Your task to perform on an android device: Clear the shopping cart on walmart.com. Add razer blade to the cart on walmart.com Image 0: 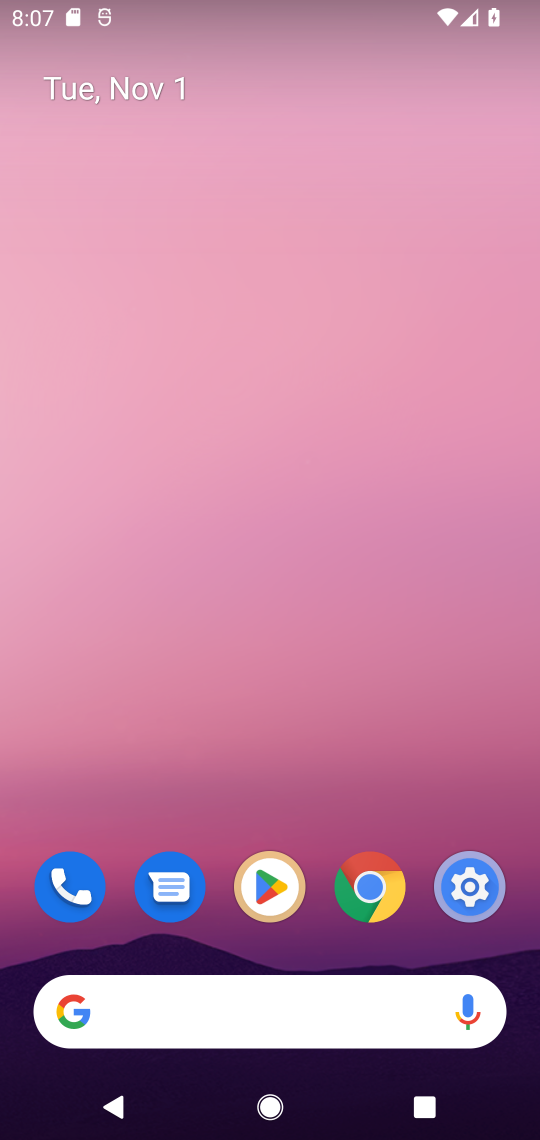
Step 0: click (209, 984)
Your task to perform on an android device: Clear the shopping cart on walmart.com. Add razer blade to the cart on walmart.com Image 1: 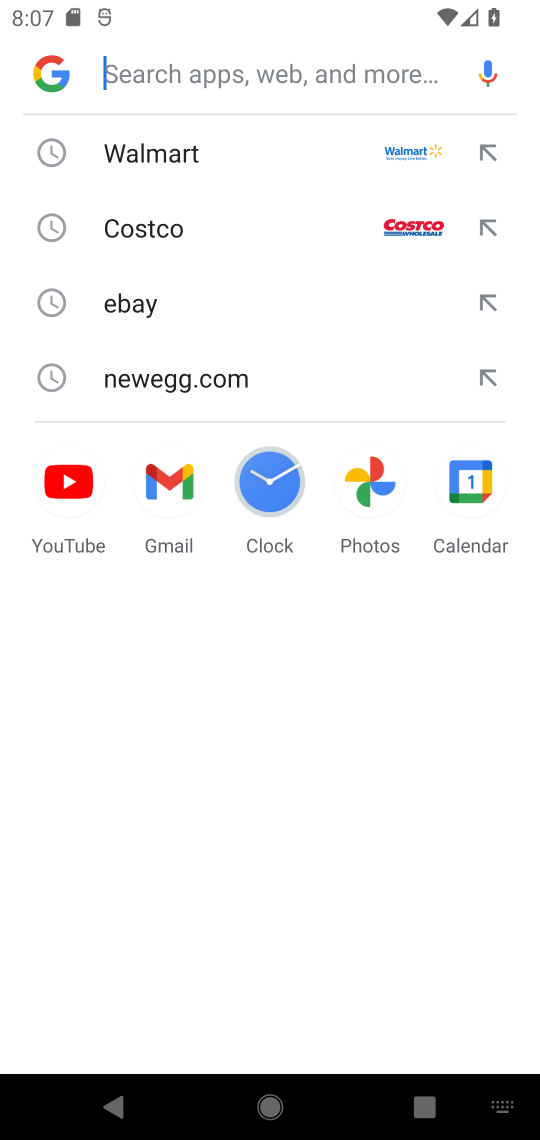
Step 1: click (396, 164)
Your task to perform on an android device: Clear the shopping cart on walmart.com. Add razer blade to the cart on walmart.com Image 2: 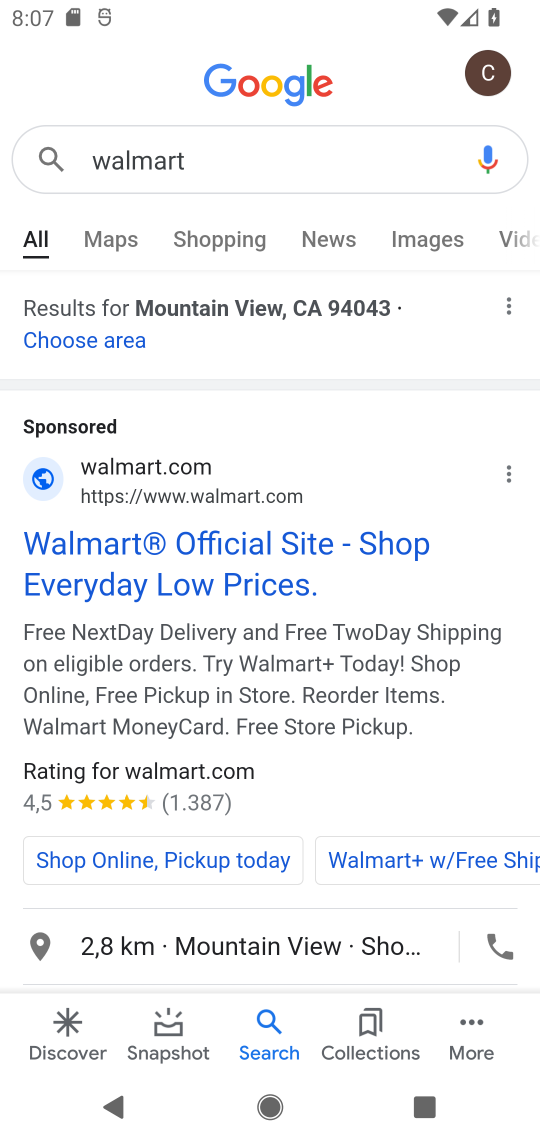
Step 2: click (481, 74)
Your task to perform on an android device: Clear the shopping cart on walmart.com. Add razer blade to the cart on walmart.com Image 3: 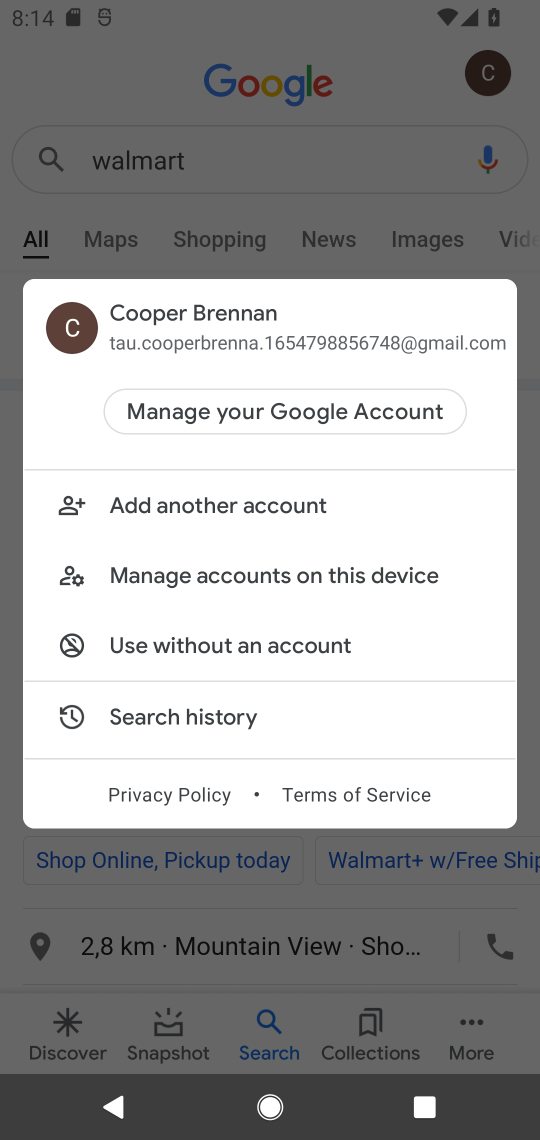
Step 3: press home button
Your task to perform on an android device: Clear the shopping cart on walmart.com. Add razer blade to the cart on walmart.com Image 4: 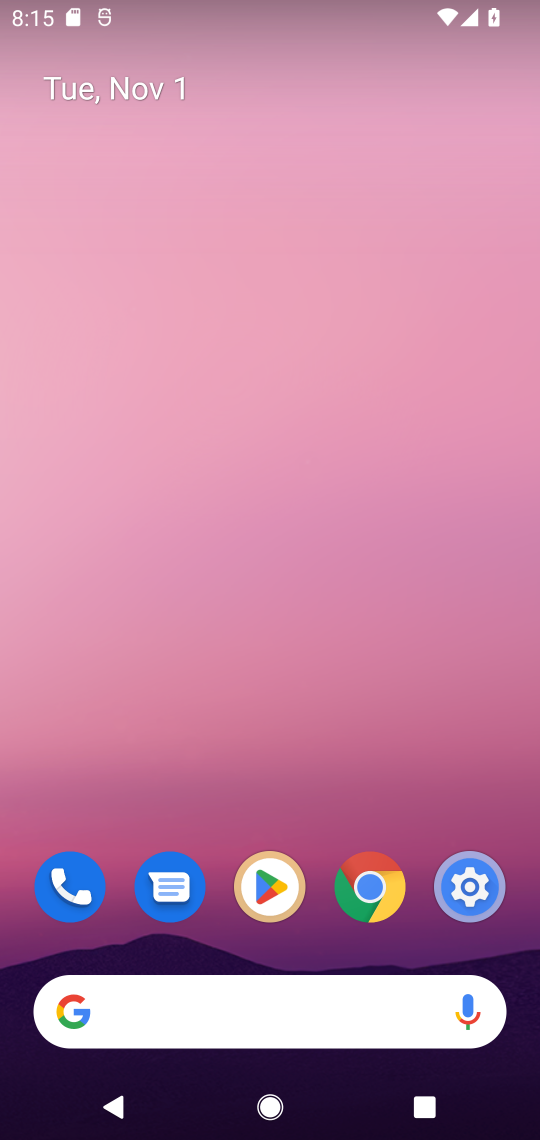
Step 4: click (252, 1005)
Your task to perform on an android device: Clear the shopping cart on walmart.com. Add razer blade to the cart on walmart.com Image 5: 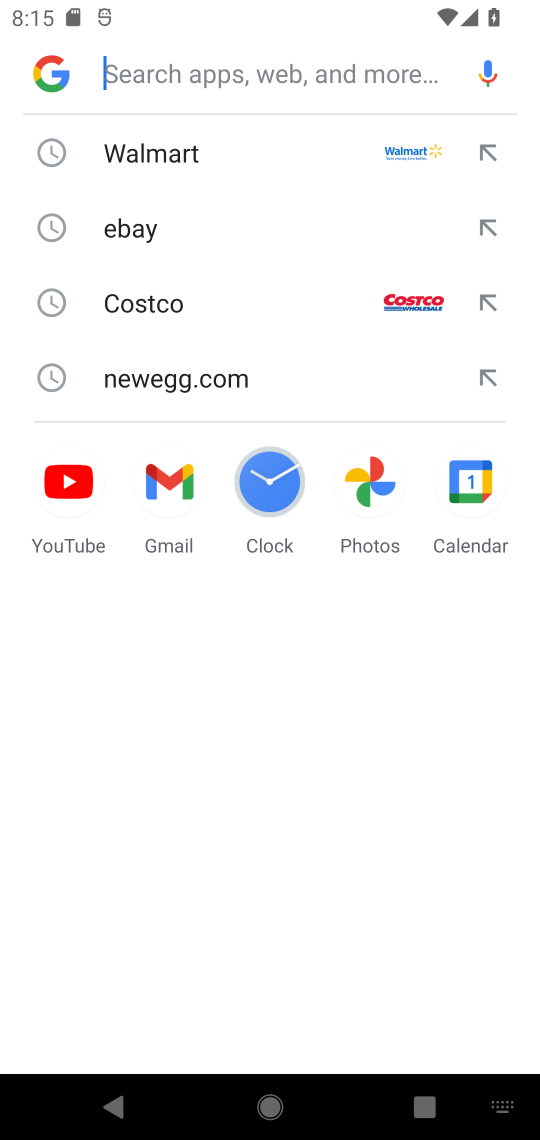
Step 5: type " walmart.com"
Your task to perform on an android device: Clear the shopping cart on walmart.com. Add razer blade to the cart on walmart.com Image 6: 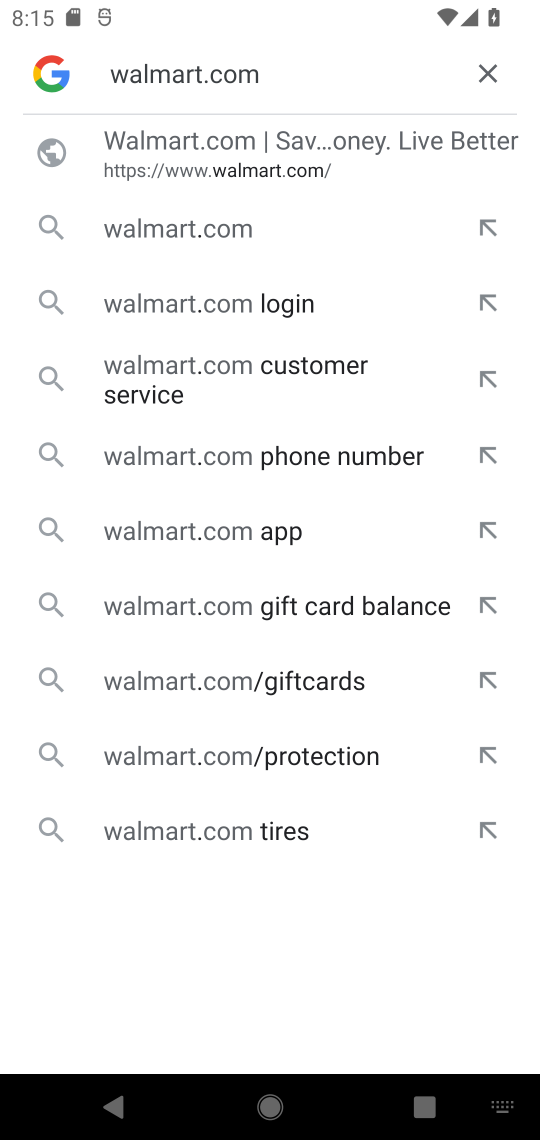
Step 6: click (292, 139)
Your task to perform on an android device: Clear the shopping cart on walmart.com. Add razer blade to the cart on walmart.com Image 7: 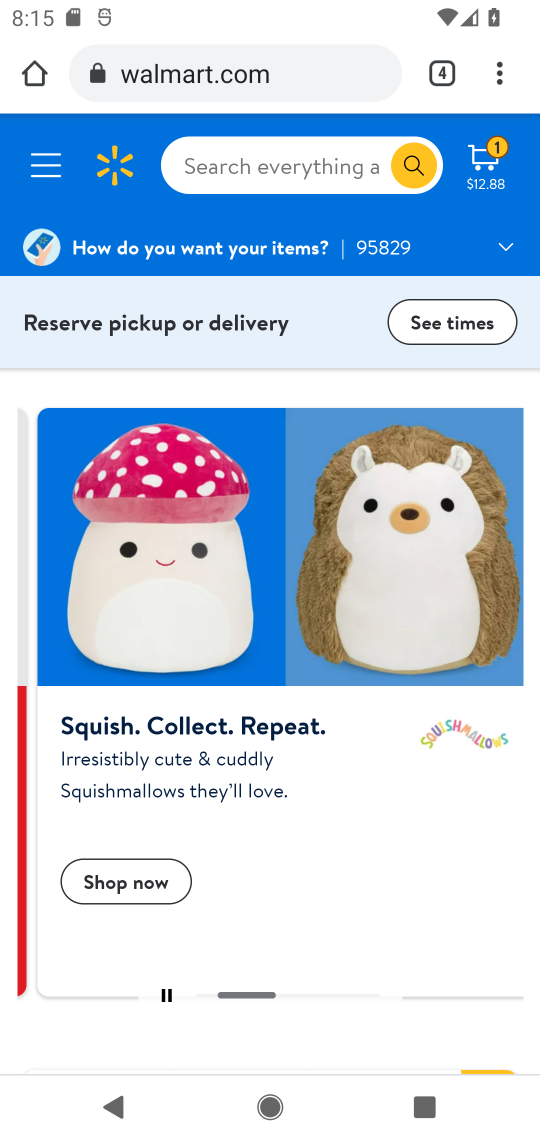
Step 7: click (270, 163)
Your task to perform on an android device: Clear the shopping cart on walmart.com. Add razer blade to the cart on walmart.com Image 8: 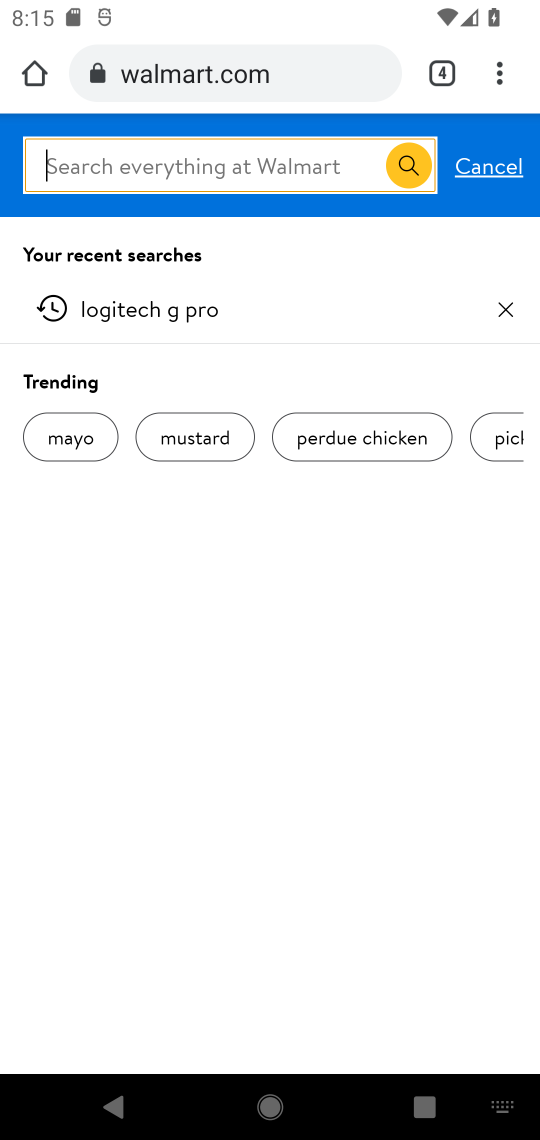
Step 8: click (271, 163)
Your task to perform on an android device: Clear the shopping cart on walmart.com. Add razer blade to the cart on walmart.com Image 9: 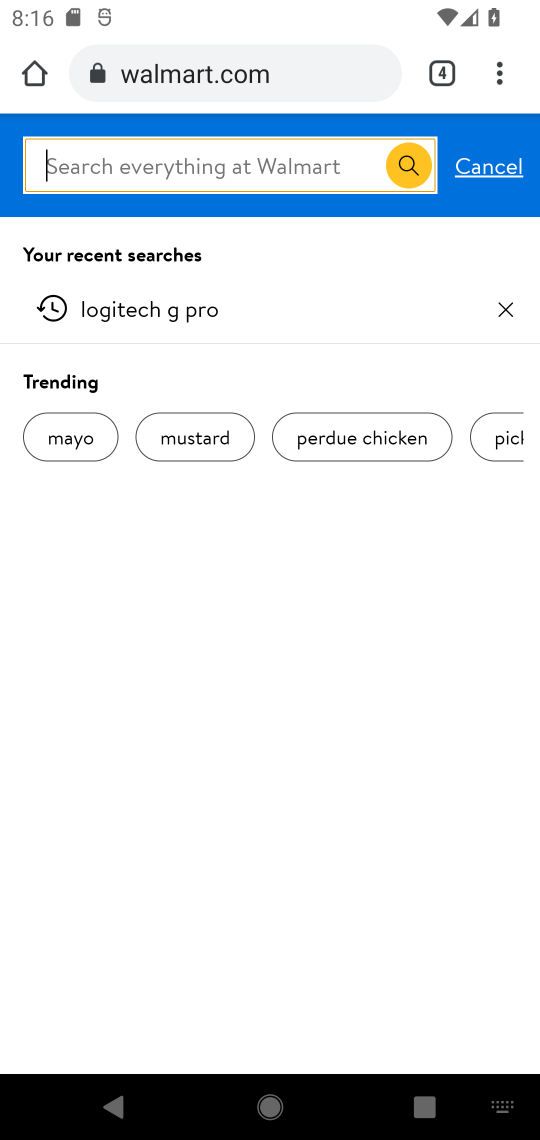
Step 9: type "razer blade "
Your task to perform on an android device: Clear the shopping cart on walmart.com. Add razer blade to the cart on walmart.com Image 10: 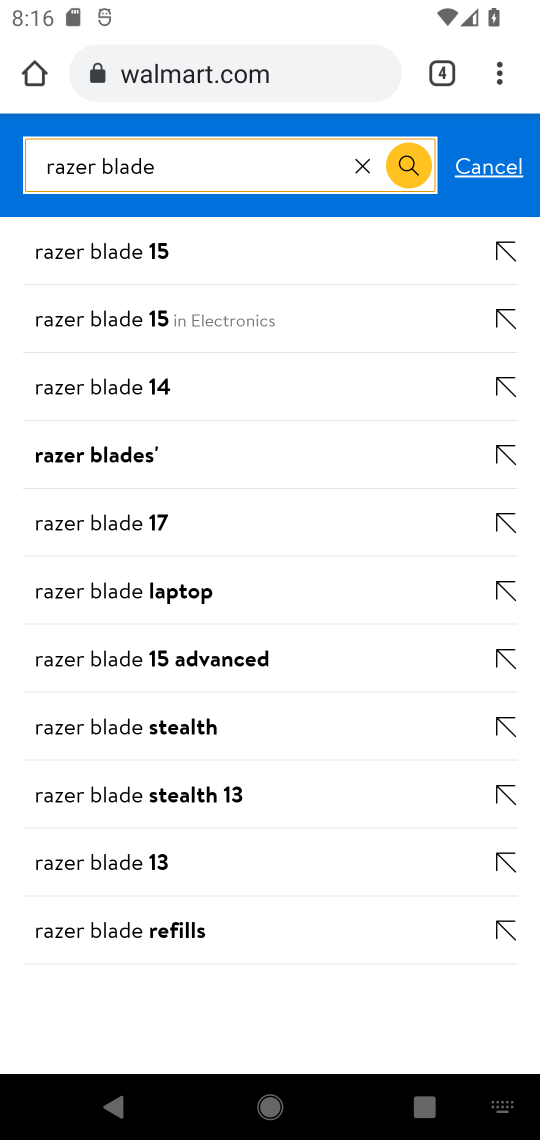
Step 10: click (131, 449)
Your task to perform on an android device: Clear the shopping cart on walmart.com. Add razer blade to the cart on walmart.com Image 11: 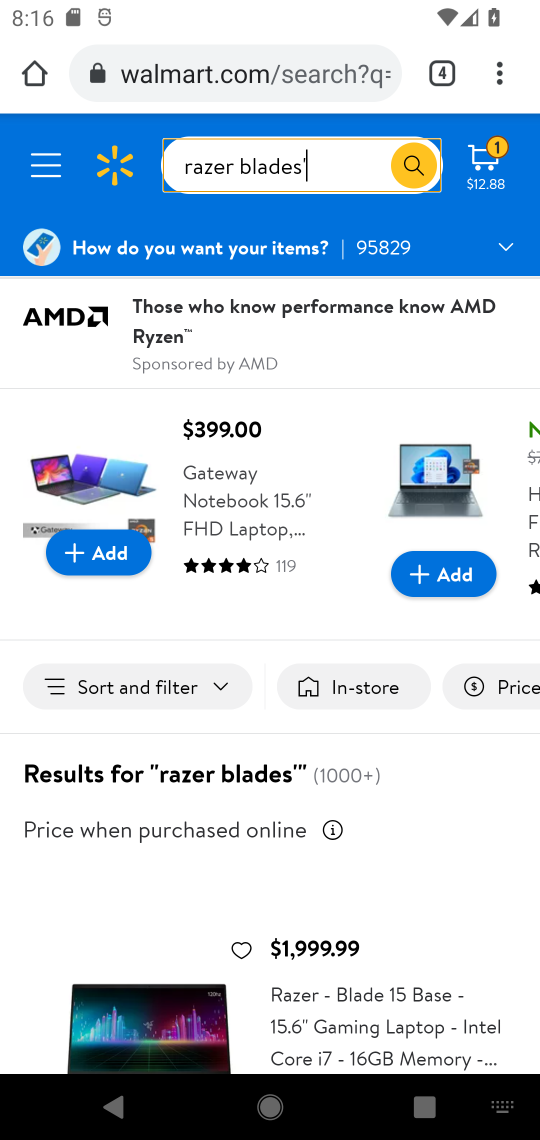
Step 11: drag from (426, 880) to (414, 697)
Your task to perform on an android device: Clear the shopping cart on walmart.com. Add razer blade to the cart on walmart.com Image 12: 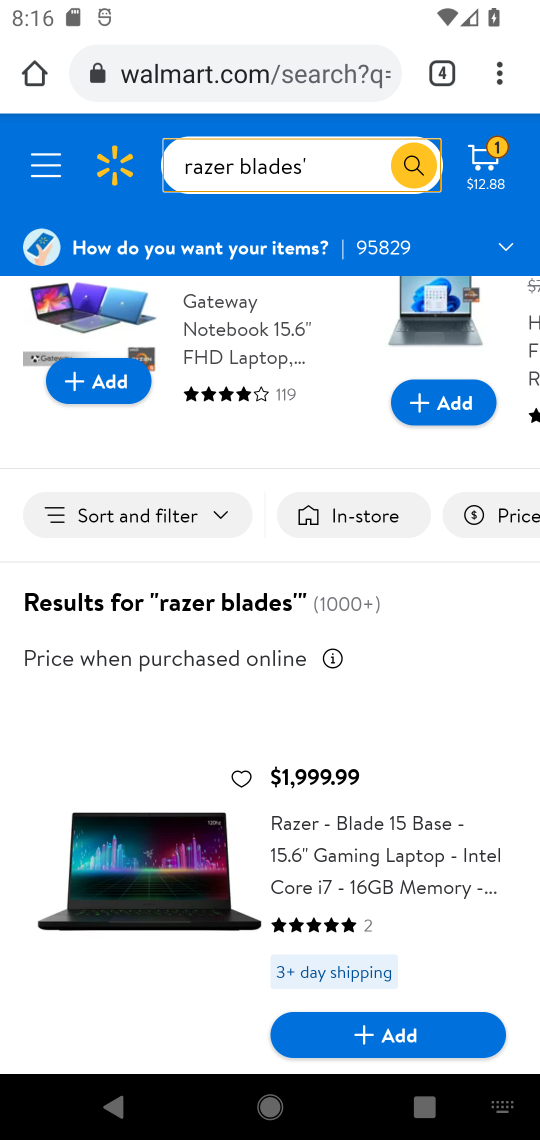
Step 12: click (365, 1041)
Your task to perform on an android device: Clear the shopping cart on walmart.com. Add razer blade to the cart on walmart.com Image 13: 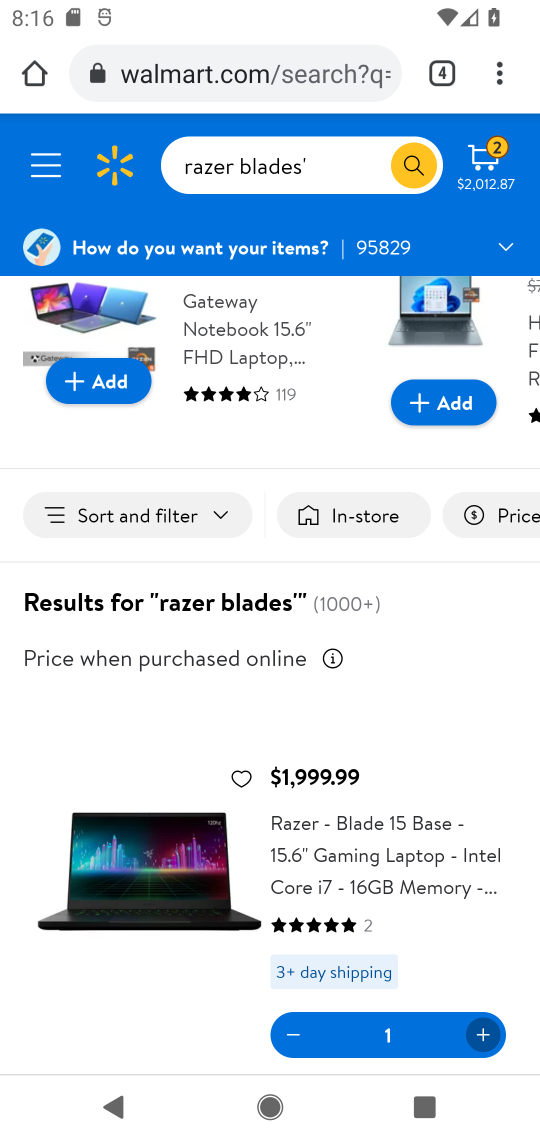
Step 13: click (476, 176)
Your task to perform on an android device: Clear the shopping cart on walmart.com. Add razer blade to the cart on walmart.com Image 14: 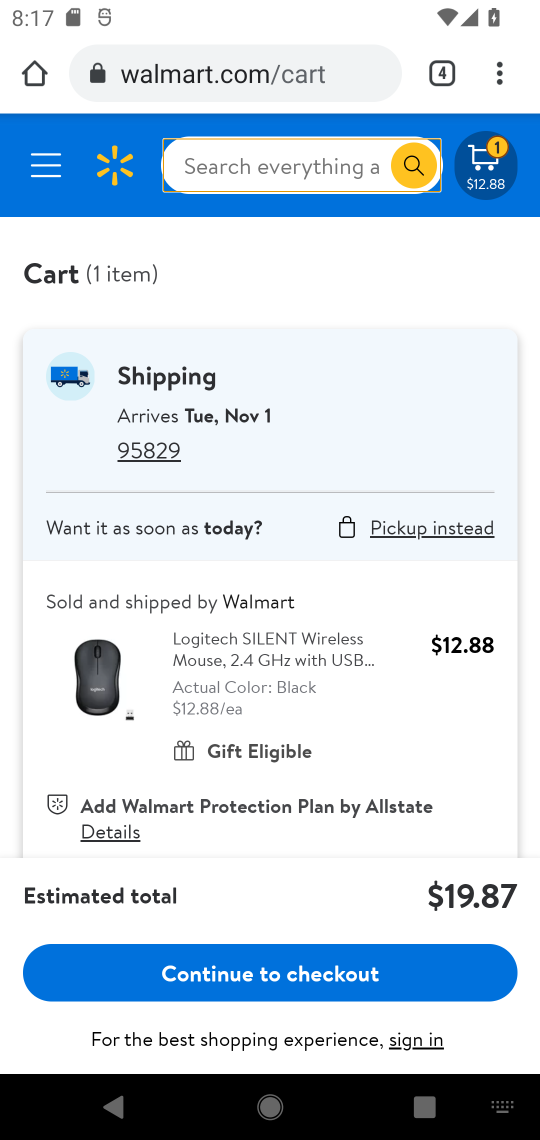
Step 14: task complete